Your task to perform on an android device: Open Google Chrome and open the bookmarks view Image 0: 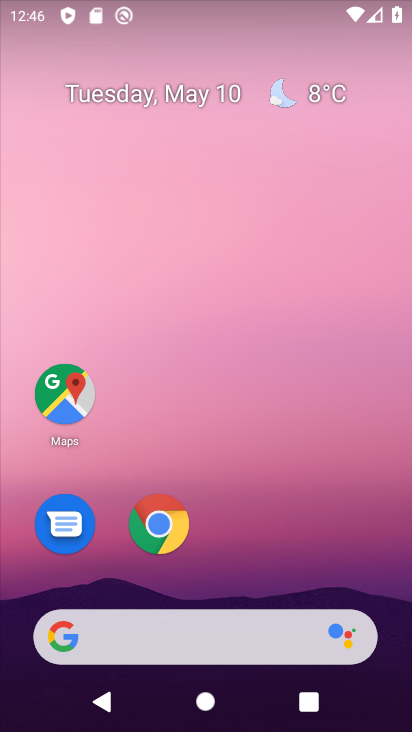
Step 0: click (154, 531)
Your task to perform on an android device: Open Google Chrome and open the bookmarks view Image 1: 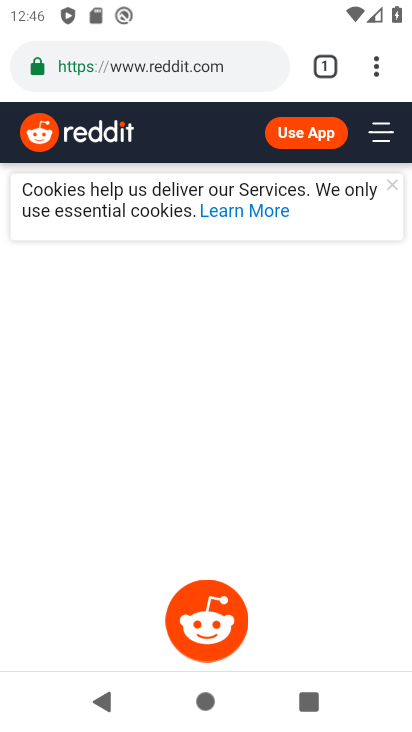
Step 1: click (377, 68)
Your task to perform on an android device: Open Google Chrome and open the bookmarks view Image 2: 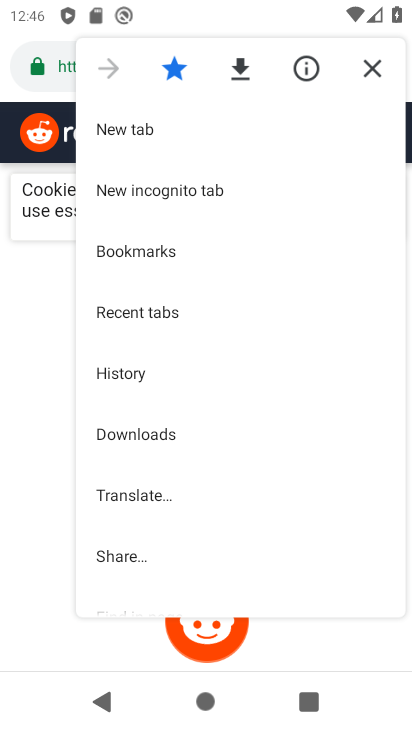
Step 2: click (169, 243)
Your task to perform on an android device: Open Google Chrome and open the bookmarks view Image 3: 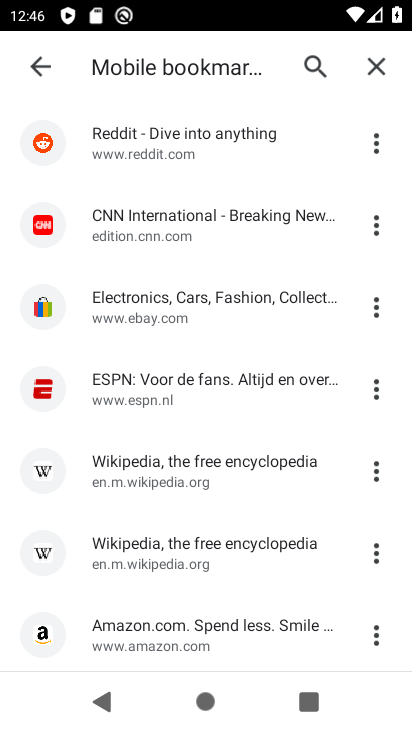
Step 3: task complete